Your task to perform on an android device: install app "Reddit" Image 0: 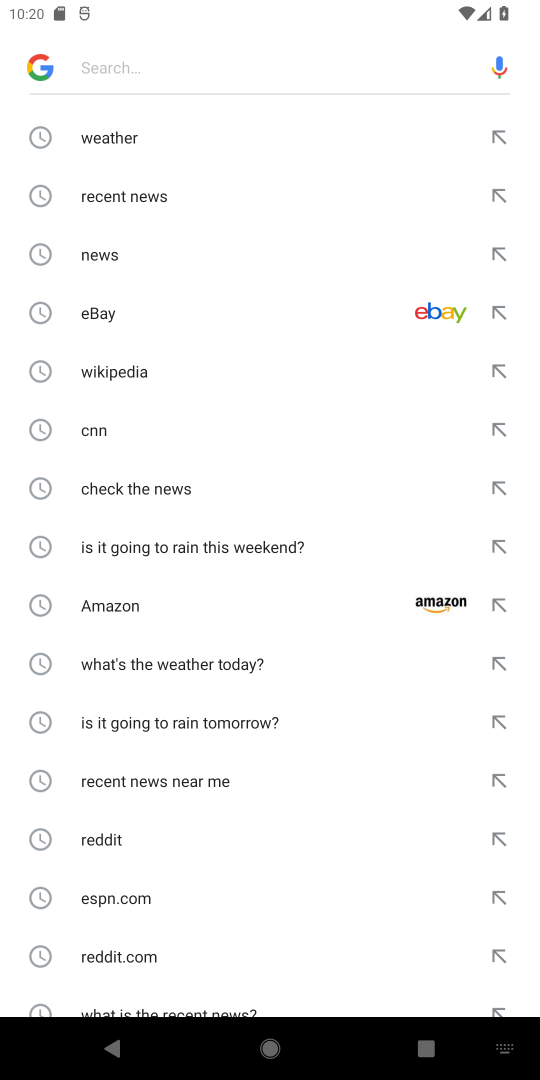
Step 0: press back button
Your task to perform on an android device: install app "Reddit" Image 1: 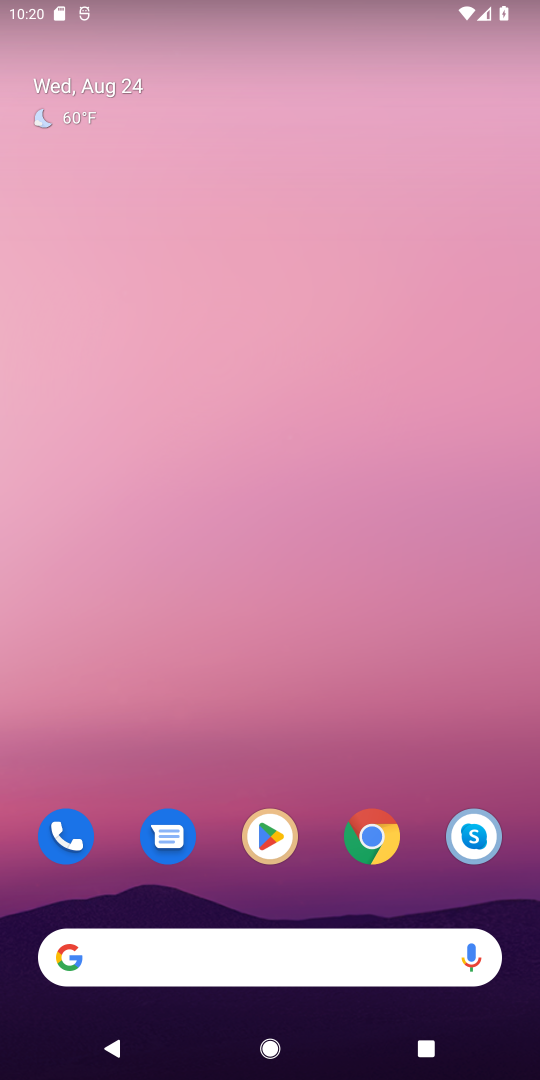
Step 1: click (270, 832)
Your task to perform on an android device: install app "Reddit" Image 2: 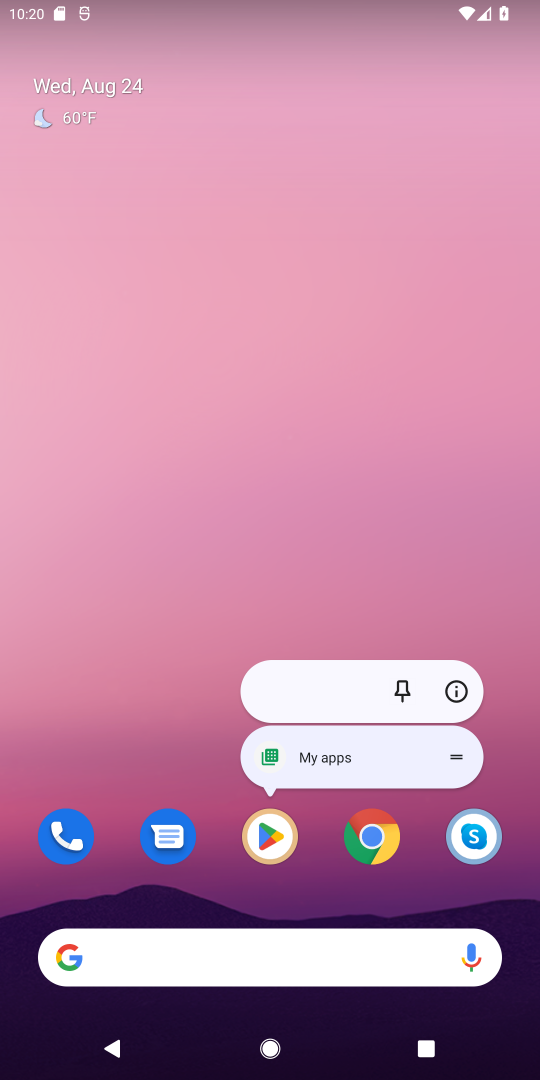
Step 2: click (266, 832)
Your task to perform on an android device: install app "Reddit" Image 3: 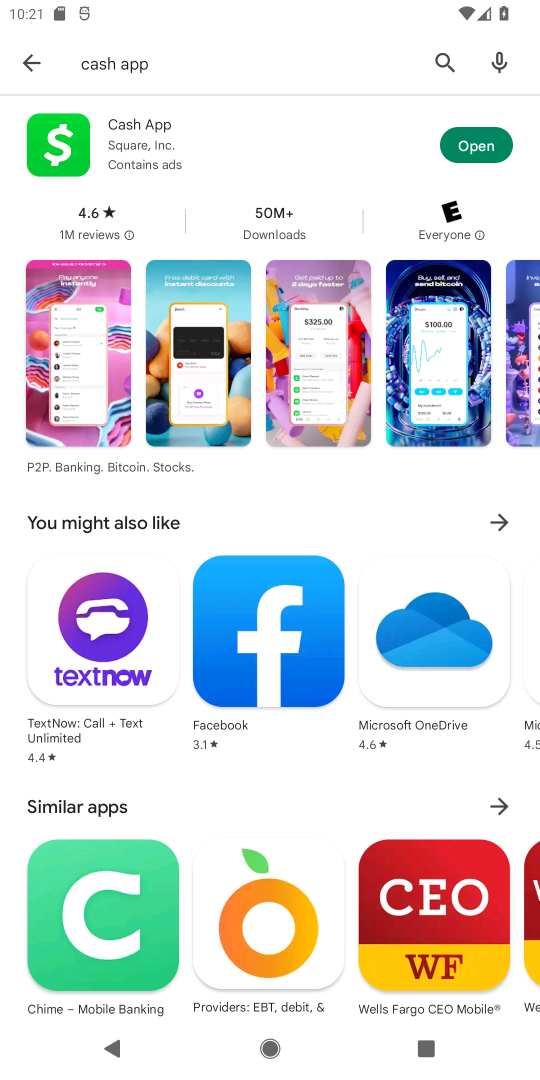
Step 3: click (445, 56)
Your task to perform on an android device: install app "Reddit" Image 4: 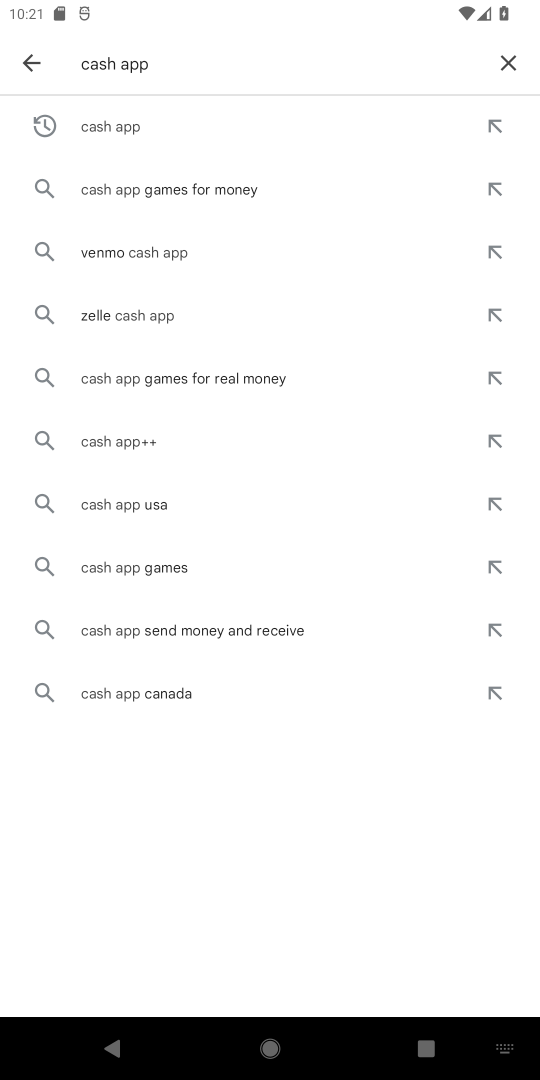
Step 4: click (506, 52)
Your task to perform on an android device: install app "Reddit" Image 5: 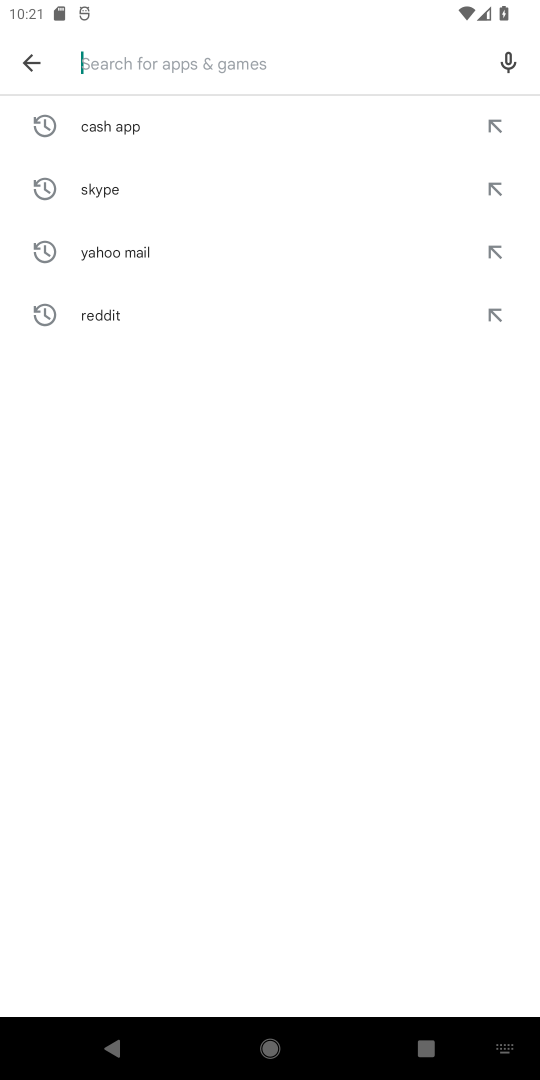
Step 5: type "Reddit"
Your task to perform on an android device: install app "Reddit" Image 6: 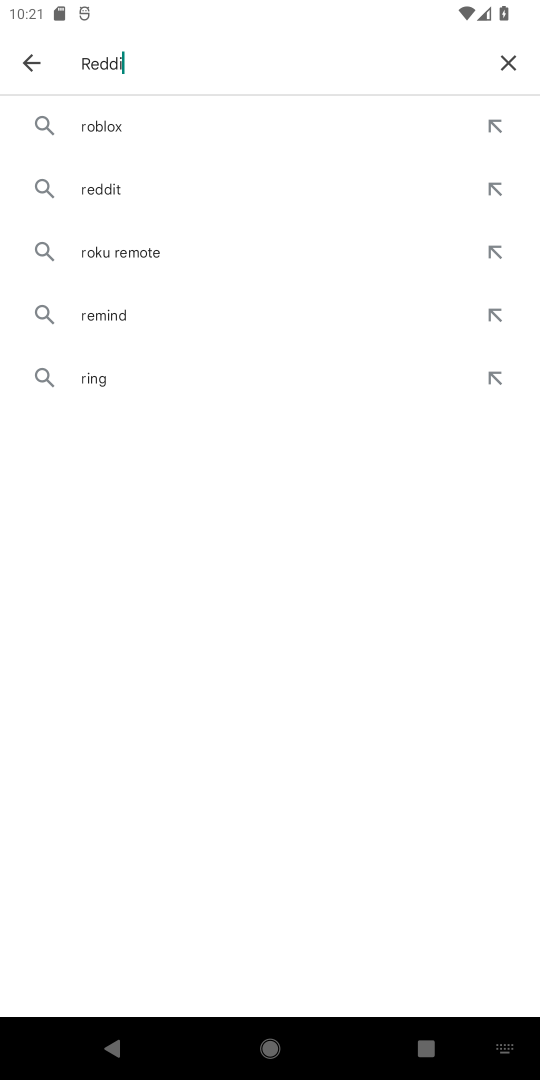
Step 6: type ""
Your task to perform on an android device: install app "Reddit" Image 7: 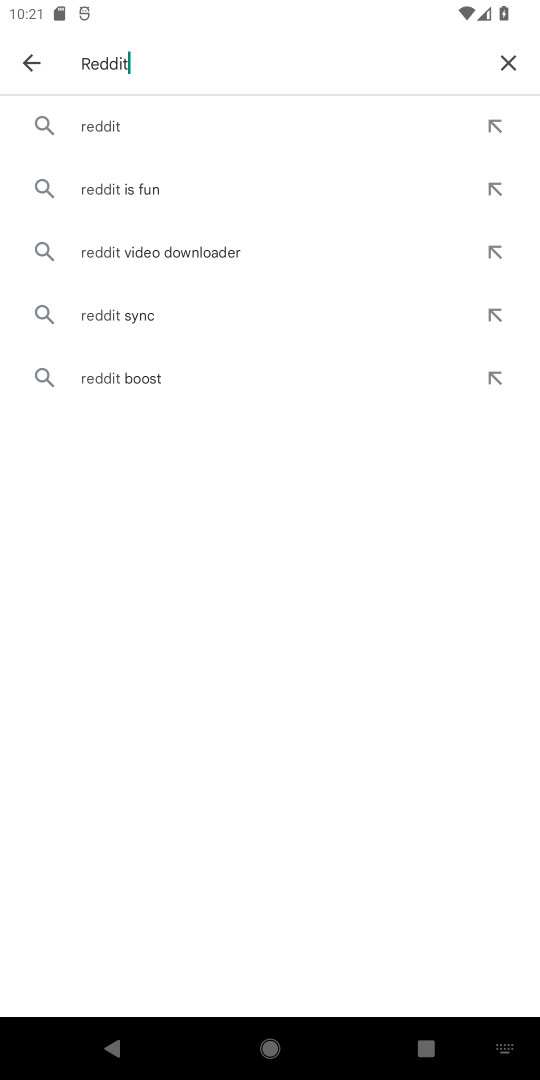
Step 7: click (158, 126)
Your task to perform on an android device: install app "Reddit" Image 8: 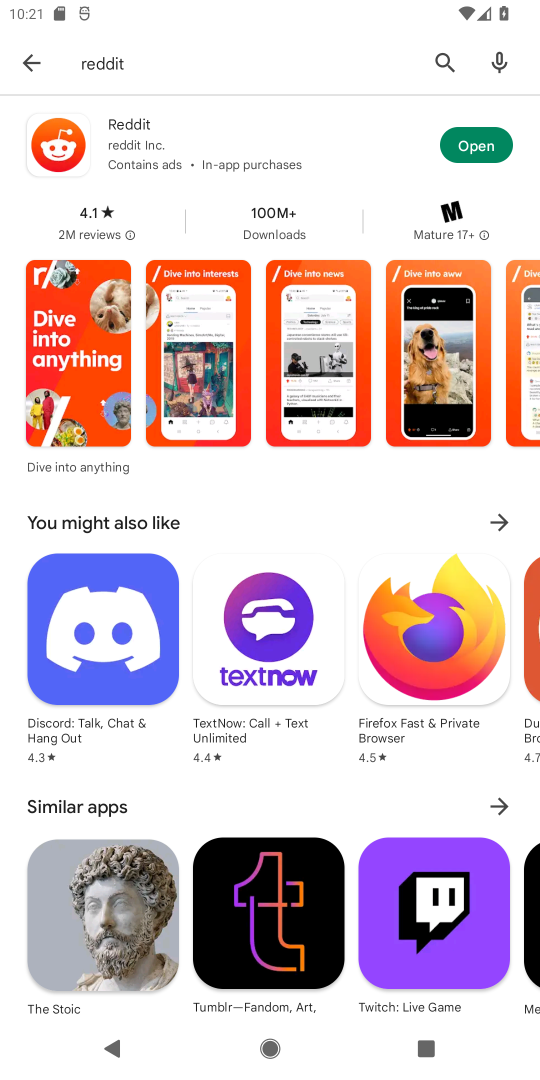
Step 8: click (282, 144)
Your task to perform on an android device: install app "Reddit" Image 9: 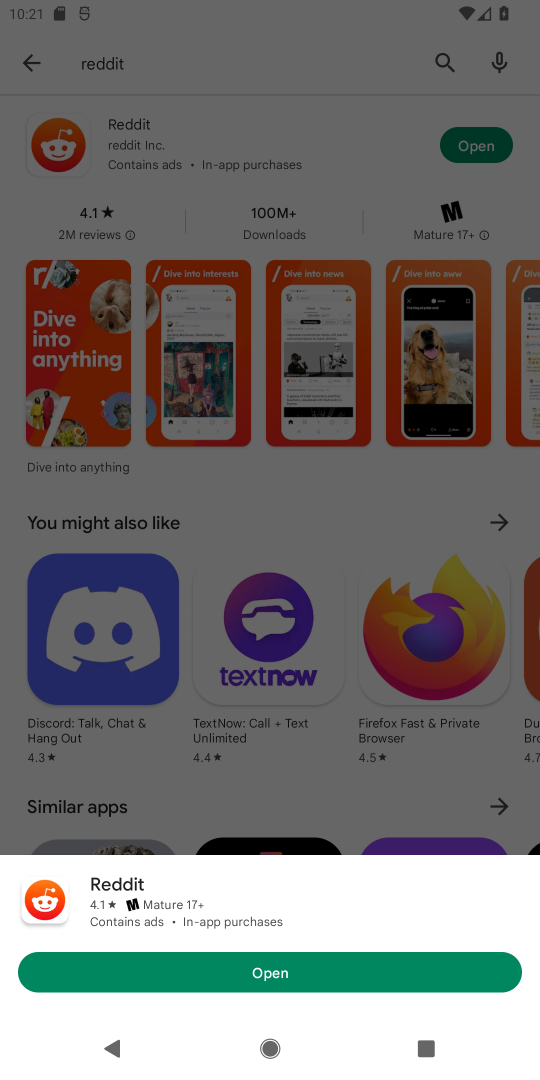
Step 9: task complete